Your task to perform on an android device: Open calendar and show me the fourth week of next month Image 0: 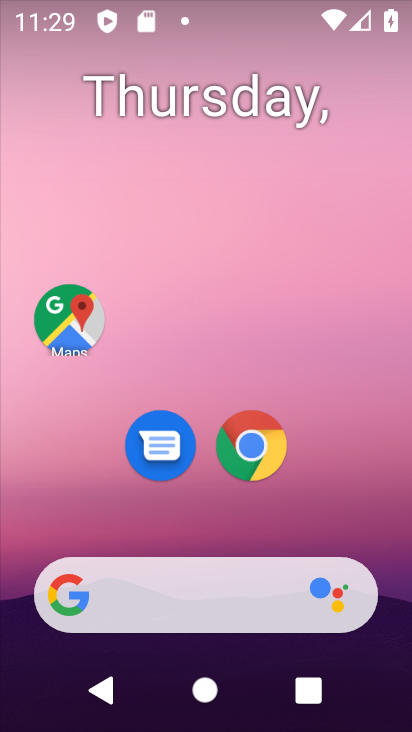
Step 0: drag from (204, 519) to (233, 66)
Your task to perform on an android device: Open calendar and show me the fourth week of next month Image 1: 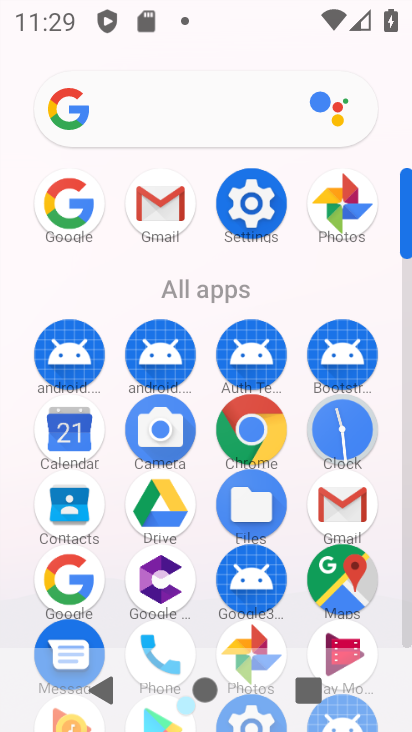
Step 1: click (72, 441)
Your task to perform on an android device: Open calendar and show me the fourth week of next month Image 2: 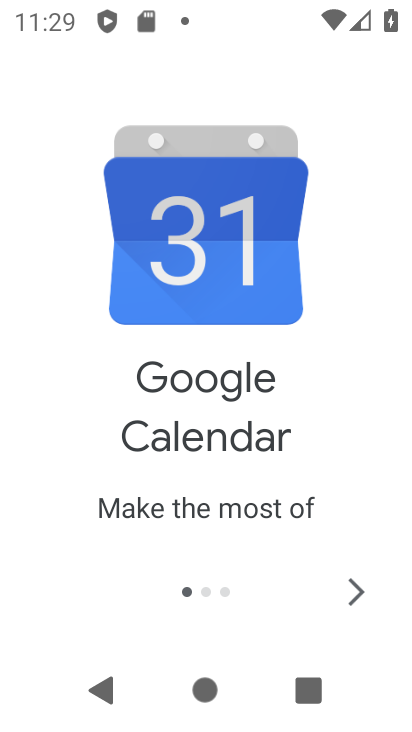
Step 2: click (362, 605)
Your task to perform on an android device: Open calendar and show me the fourth week of next month Image 3: 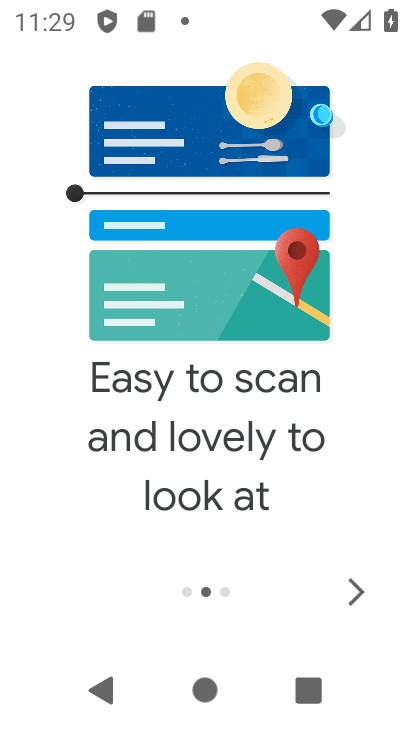
Step 3: click (361, 605)
Your task to perform on an android device: Open calendar and show me the fourth week of next month Image 4: 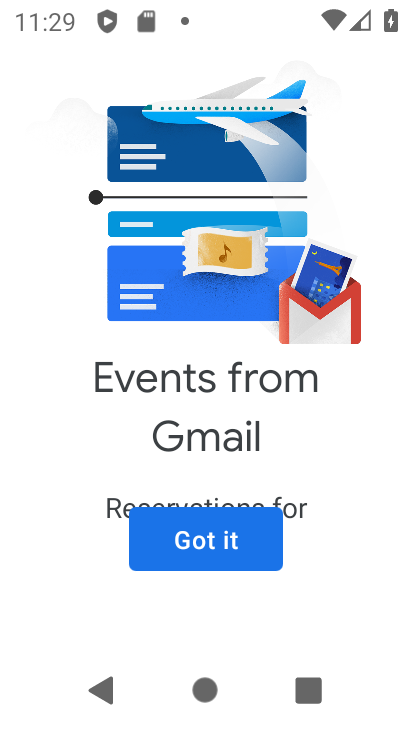
Step 4: click (195, 533)
Your task to perform on an android device: Open calendar and show me the fourth week of next month Image 5: 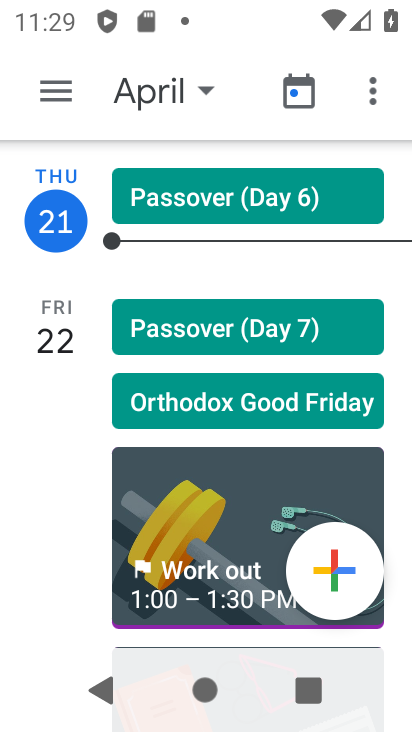
Step 5: click (163, 101)
Your task to perform on an android device: Open calendar and show me the fourth week of next month Image 6: 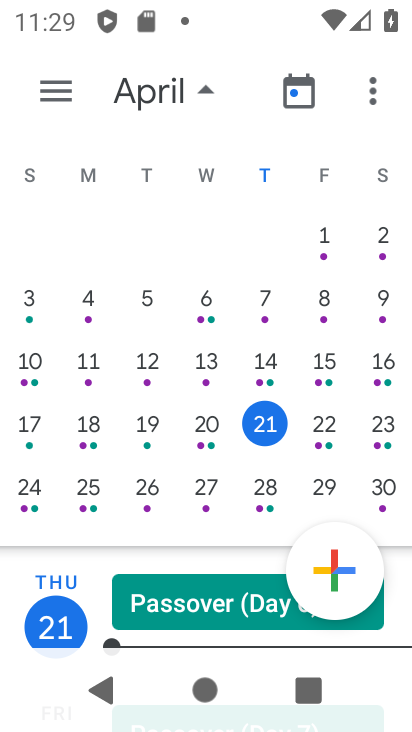
Step 6: drag from (386, 334) to (38, 340)
Your task to perform on an android device: Open calendar and show me the fourth week of next month Image 7: 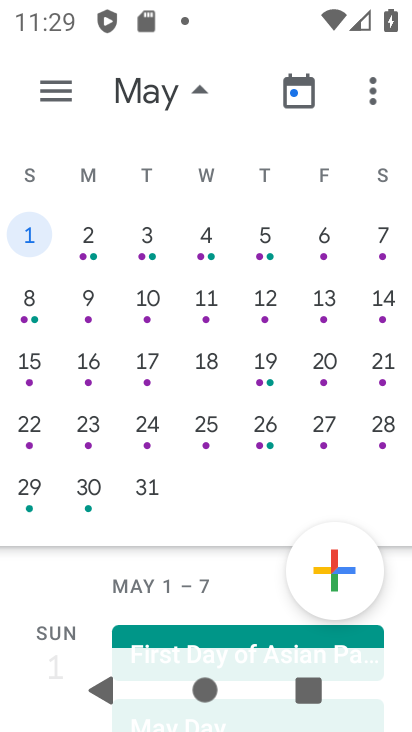
Step 7: click (81, 416)
Your task to perform on an android device: Open calendar and show me the fourth week of next month Image 8: 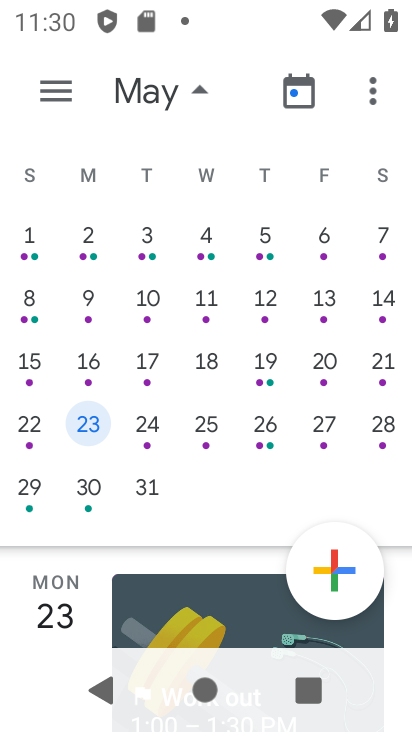
Step 8: task complete